Your task to perform on an android device: Go to privacy settings Image 0: 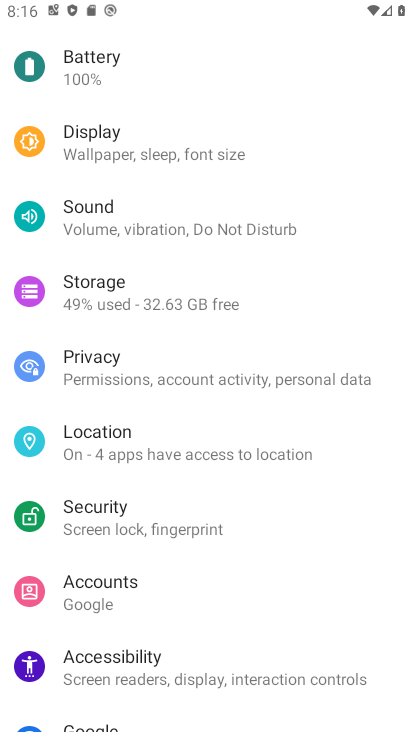
Step 0: click (139, 374)
Your task to perform on an android device: Go to privacy settings Image 1: 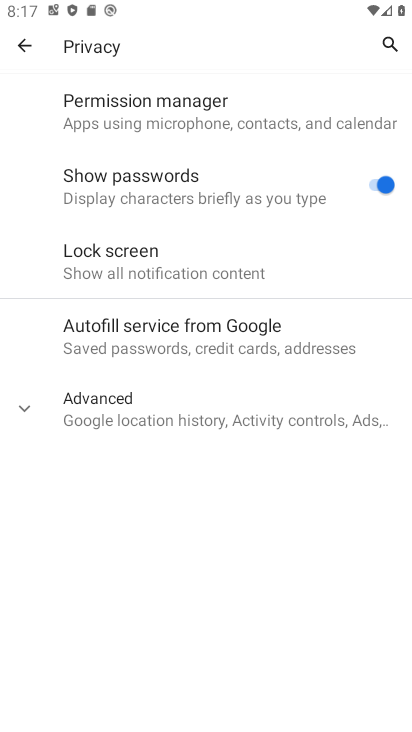
Step 1: task complete